Your task to perform on an android device: Turn off the flashlight Image 0: 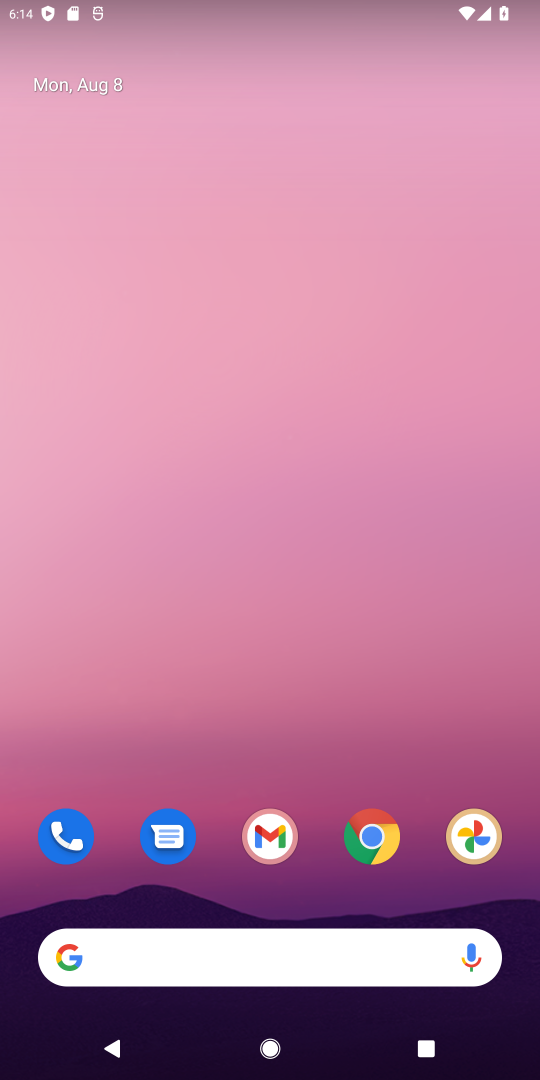
Step 0: drag from (345, 748) to (330, 0)
Your task to perform on an android device: Turn off the flashlight Image 1: 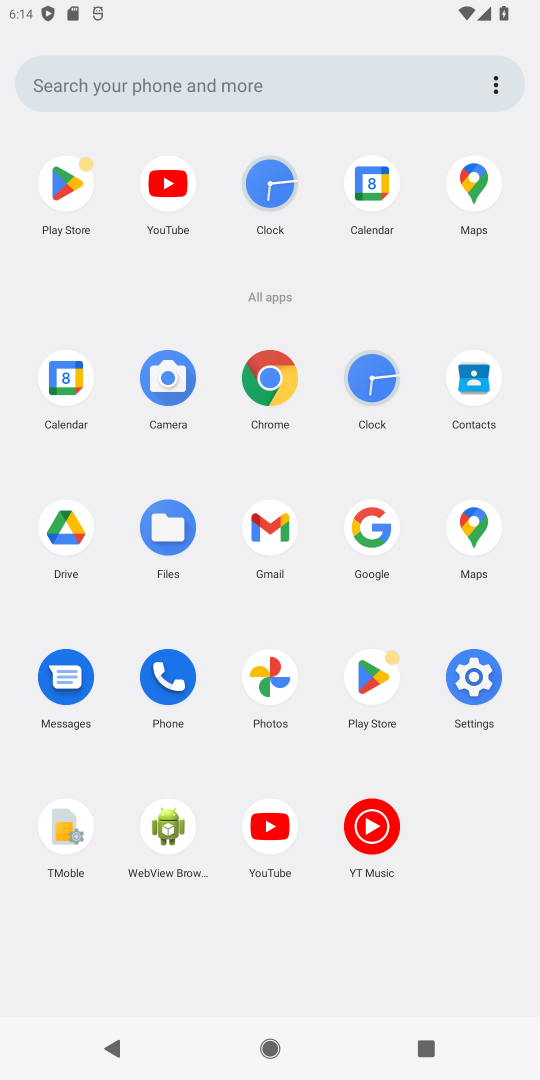
Step 1: click (483, 688)
Your task to perform on an android device: Turn off the flashlight Image 2: 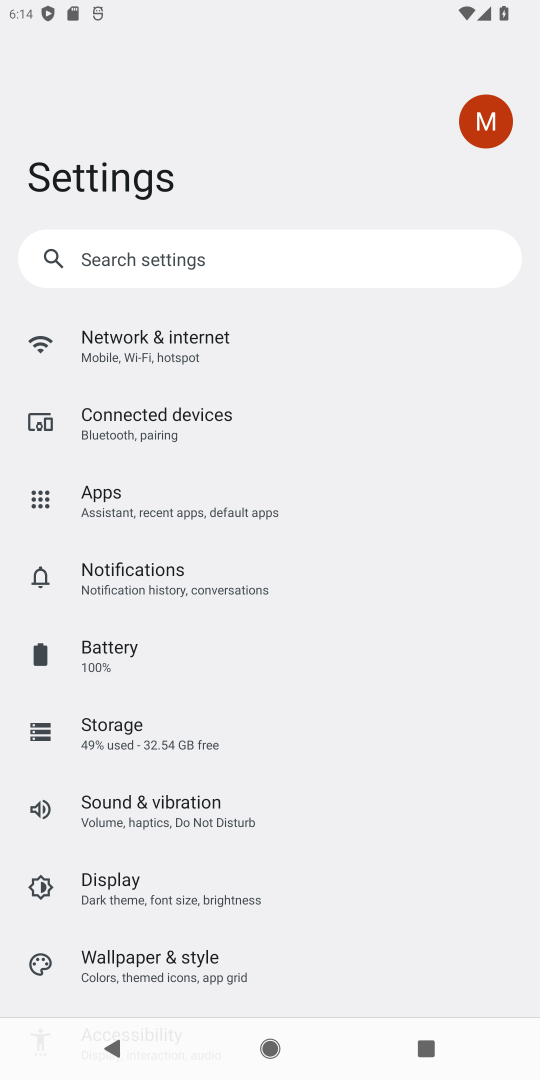
Step 2: task complete